Your task to perform on an android device: turn off notifications in google photos Image 0: 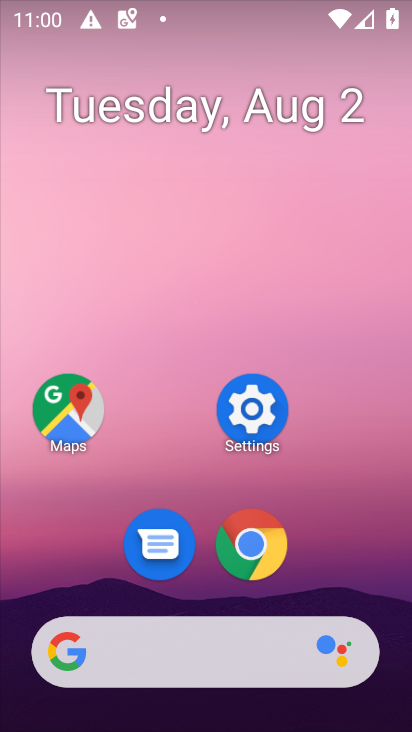
Step 0: drag from (229, 623) to (350, 138)
Your task to perform on an android device: turn off notifications in google photos Image 1: 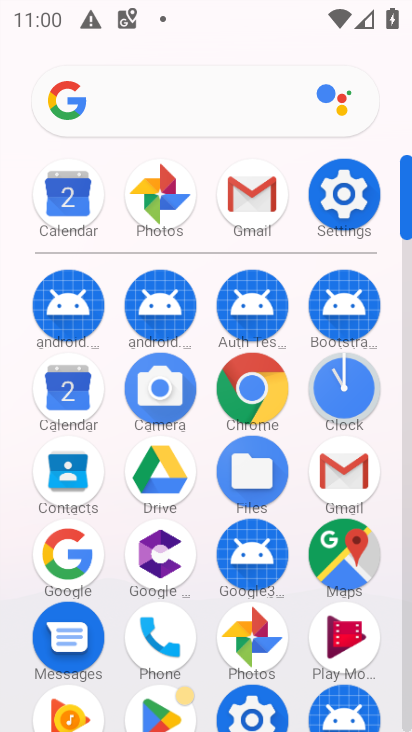
Step 1: click (146, 203)
Your task to perform on an android device: turn off notifications in google photos Image 2: 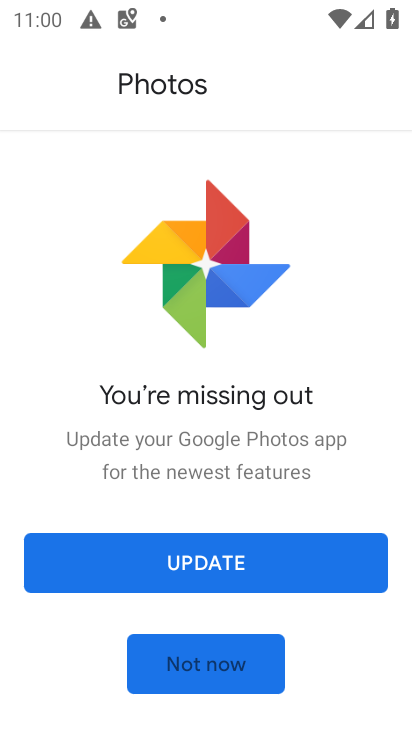
Step 2: click (270, 450)
Your task to perform on an android device: turn off notifications in google photos Image 3: 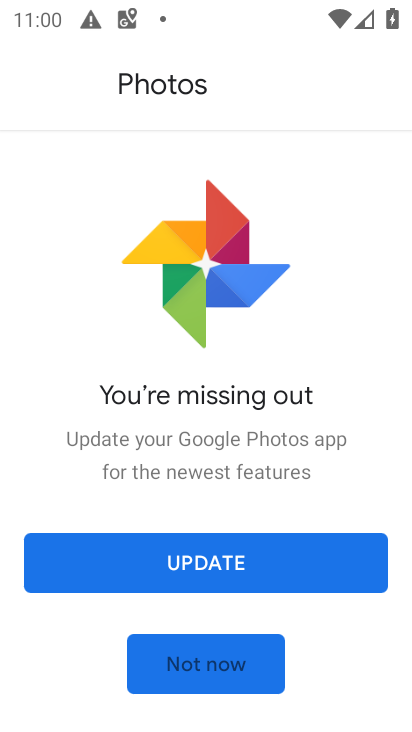
Step 3: click (245, 531)
Your task to perform on an android device: turn off notifications in google photos Image 4: 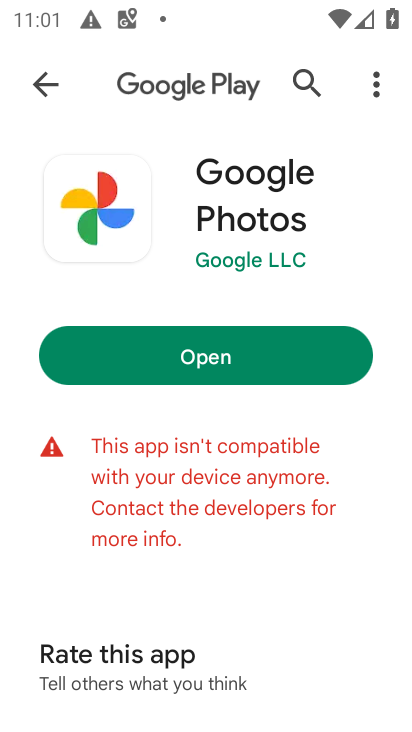
Step 4: task complete